Your task to perform on an android device: Open CNN.com Image 0: 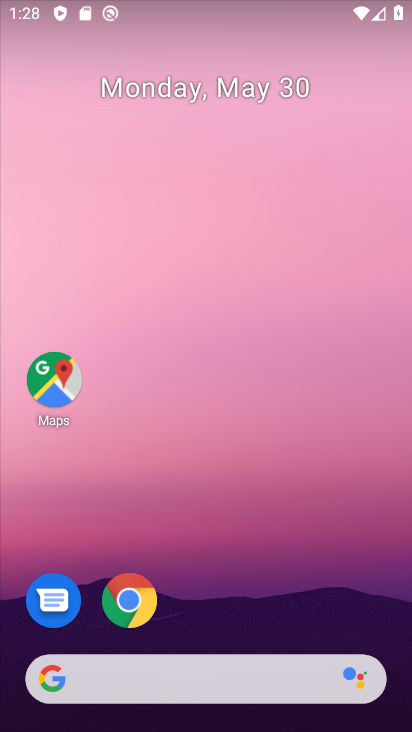
Step 0: drag from (253, 647) to (157, 7)
Your task to perform on an android device: Open CNN.com Image 1: 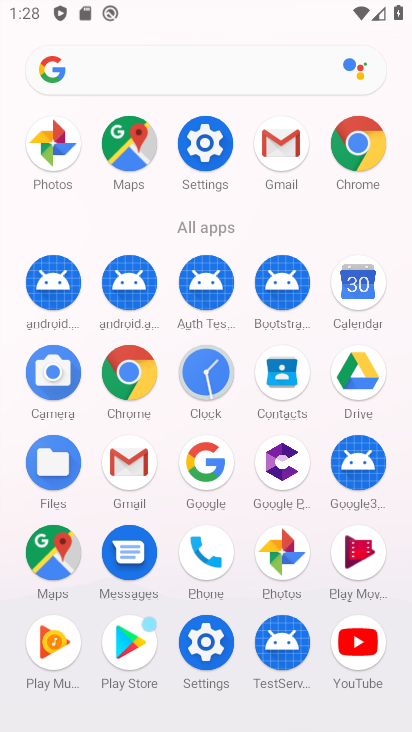
Step 1: click (130, 380)
Your task to perform on an android device: Open CNN.com Image 2: 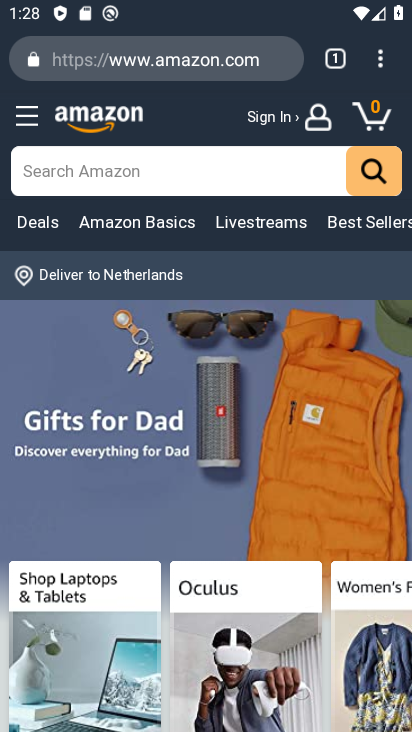
Step 2: click (326, 58)
Your task to perform on an android device: Open CNN.com Image 3: 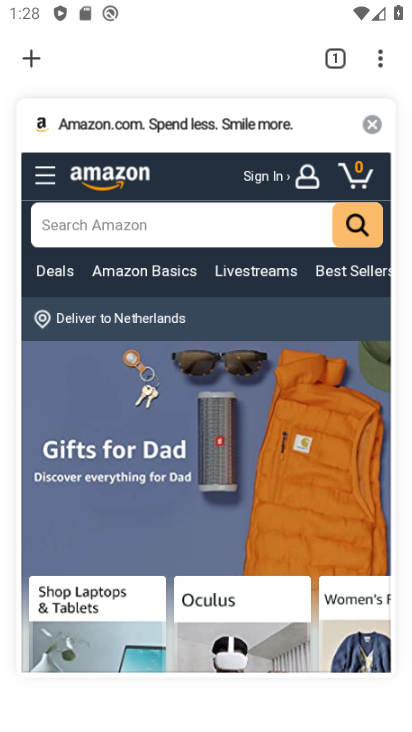
Step 3: click (39, 55)
Your task to perform on an android device: Open CNN.com Image 4: 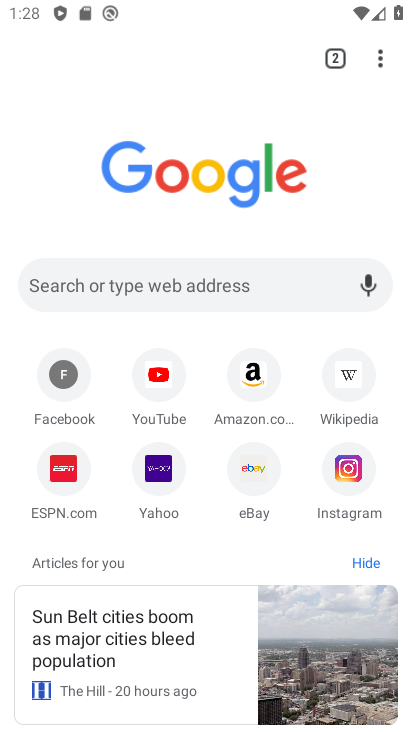
Step 4: click (155, 286)
Your task to perform on an android device: Open CNN.com Image 5: 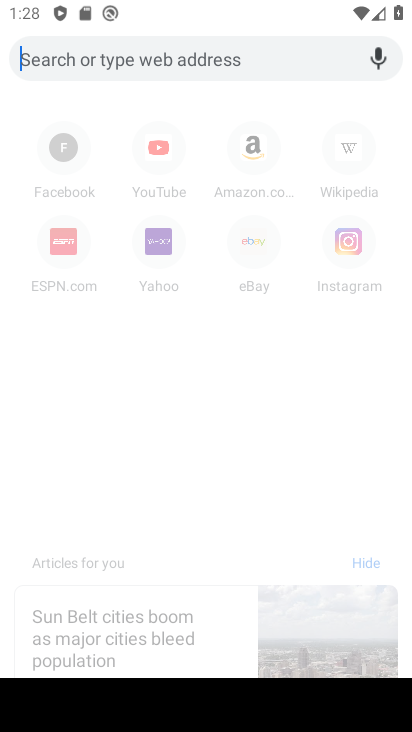
Step 5: type "cnn"
Your task to perform on an android device: Open CNN.com Image 6: 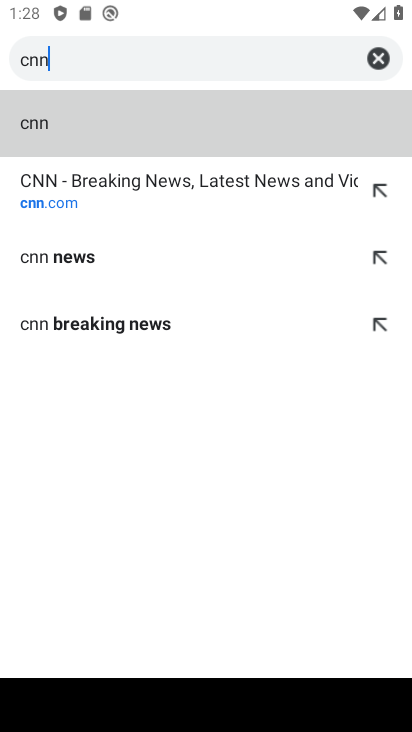
Step 6: type ""
Your task to perform on an android device: Open CNN.com Image 7: 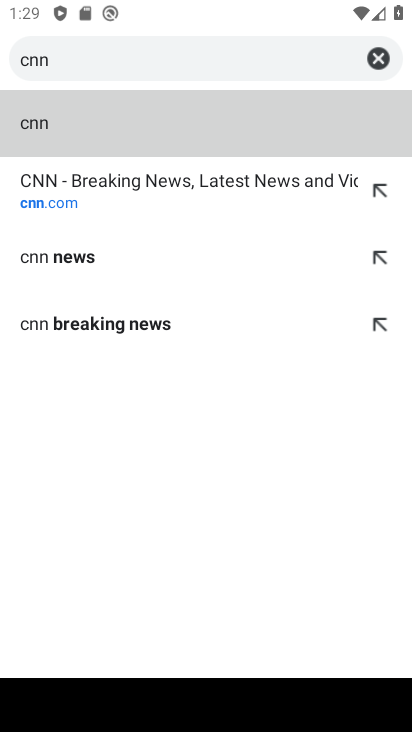
Step 7: click (104, 209)
Your task to perform on an android device: Open CNN.com Image 8: 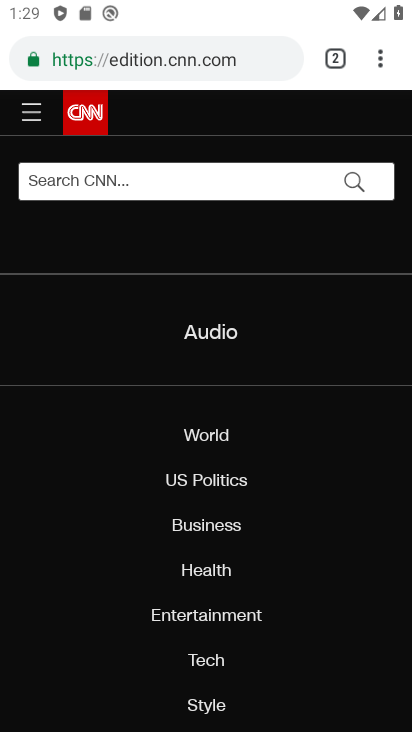
Step 8: task complete